Your task to perform on an android device: manage bookmarks in the chrome app Image 0: 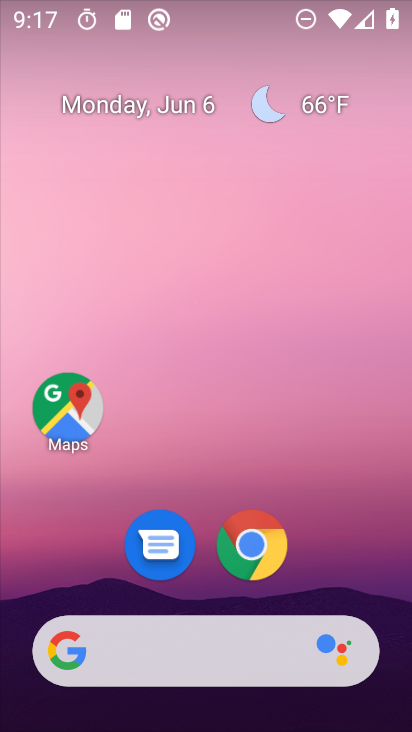
Step 0: click (273, 540)
Your task to perform on an android device: manage bookmarks in the chrome app Image 1: 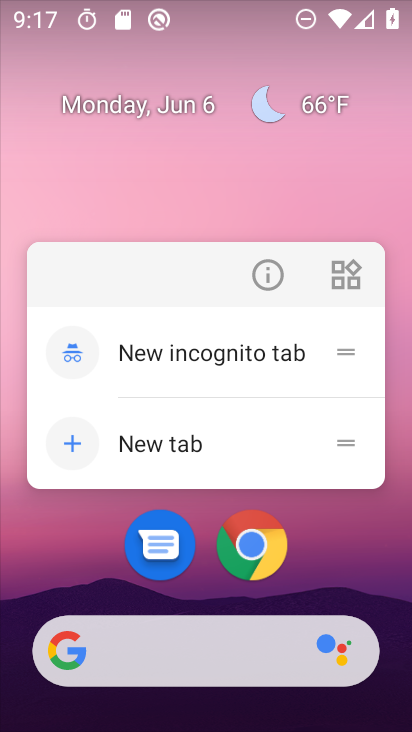
Step 1: click (250, 557)
Your task to perform on an android device: manage bookmarks in the chrome app Image 2: 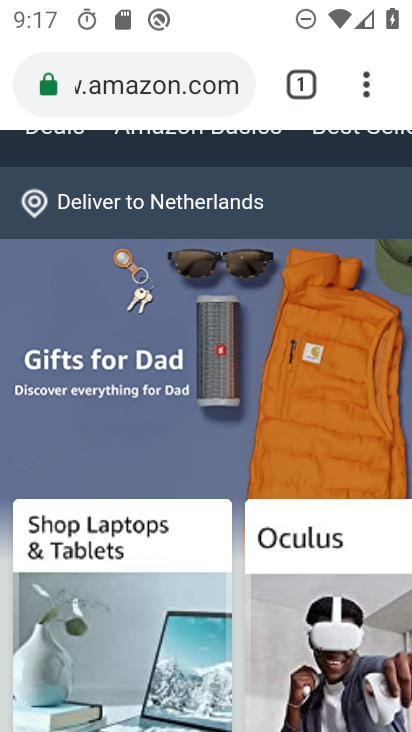
Step 2: click (363, 87)
Your task to perform on an android device: manage bookmarks in the chrome app Image 3: 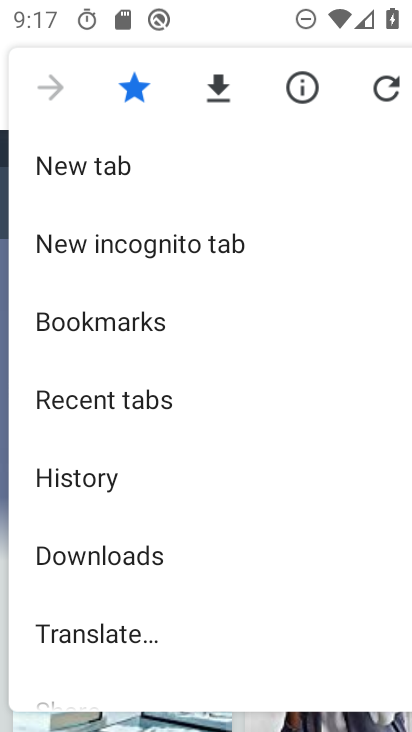
Step 3: drag from (86, 574) to (90, 454)
Your task to perform on an android device: manage bookmarks in the chrome app Image 4: 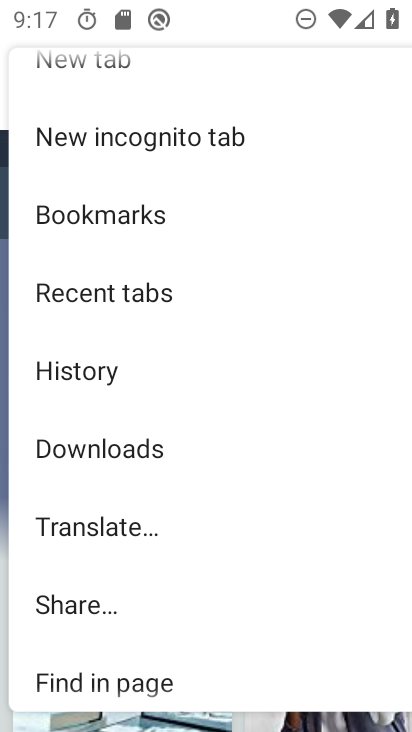
Step 4: click (98, 221)
Your task to perform on an android device: manage bookmarks in the chrome app Image 5: 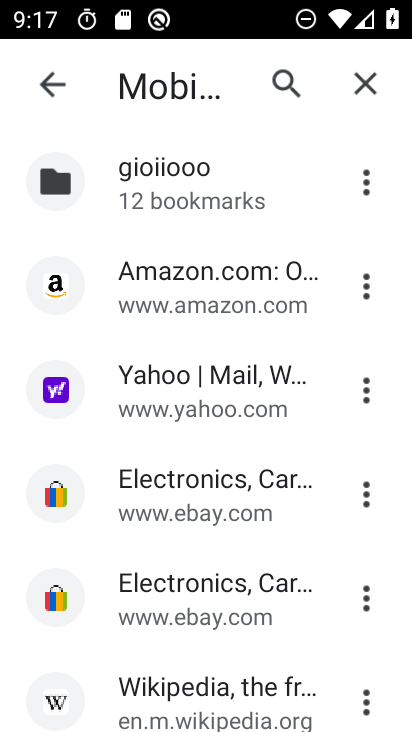
Step 5: click (366, 288)
Your task to perform on an android device: manage bookmarks in the chrome app Image 6: 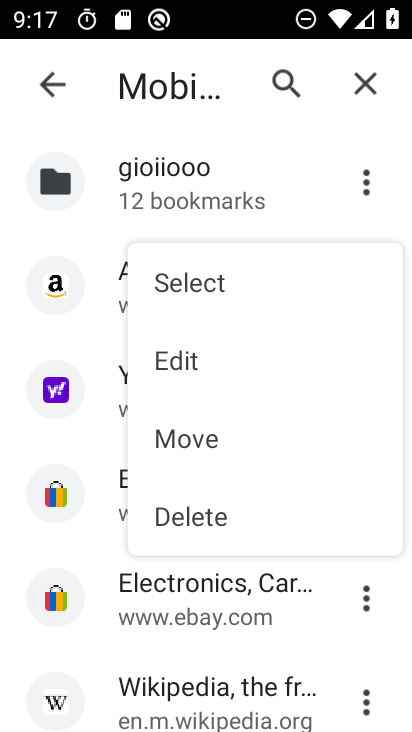
Step 6: click (179, 276)
Your task to perform on an android device: manage bookmarks in the chrome app Image 7: 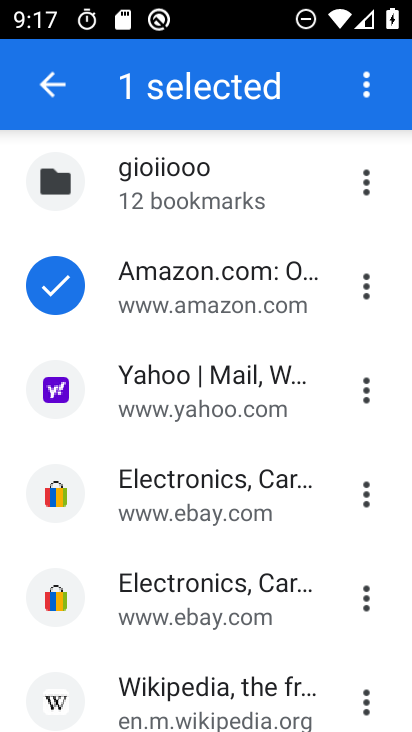
Step 7: click (127, 401)
Your task to perform on an android device: manage bookmarks in the chrome app Image 8: 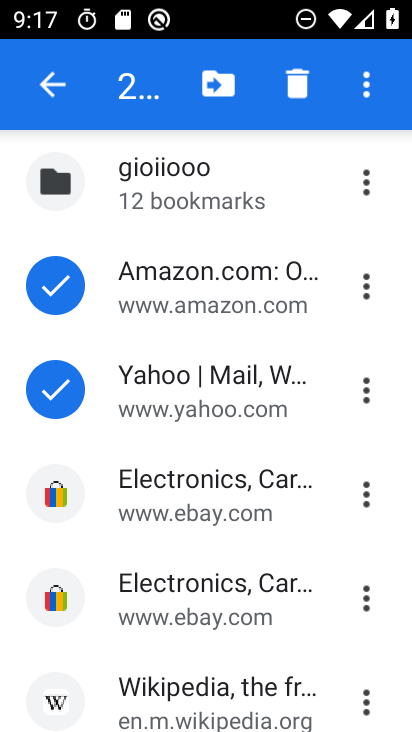
Step 8: click (144, 487)
Your task to perform on an android device: manage bookmarks in the chrome app Image 9: 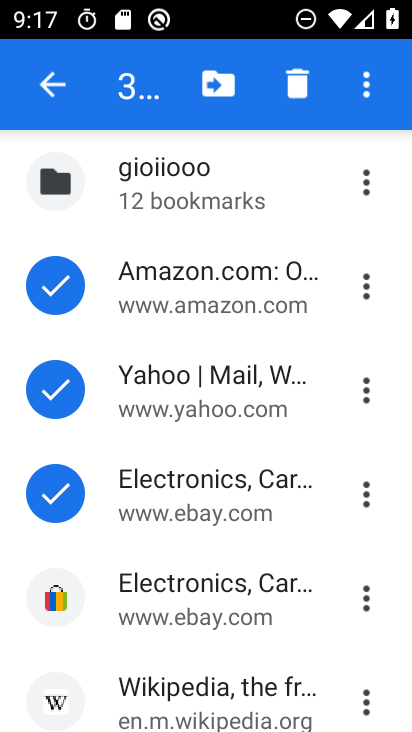
Step 9: click (145, 576)
Your task to perform on an android device: manage bookmarks in the chrome app Image 10: 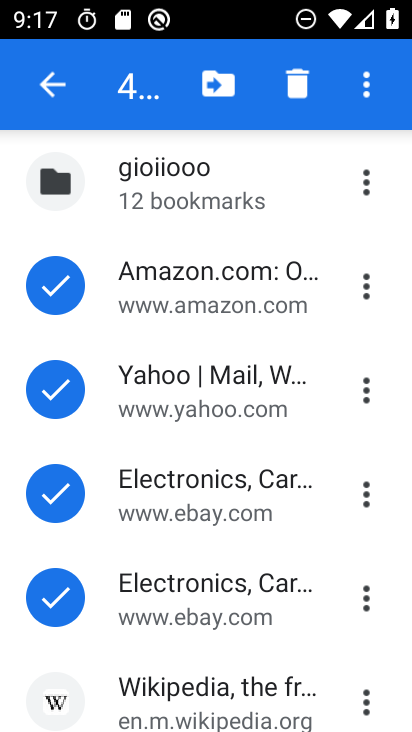
Step 10: click (163, 689)
Your task to perform on an android device: manage bookmarks in the chrome app Image 11: 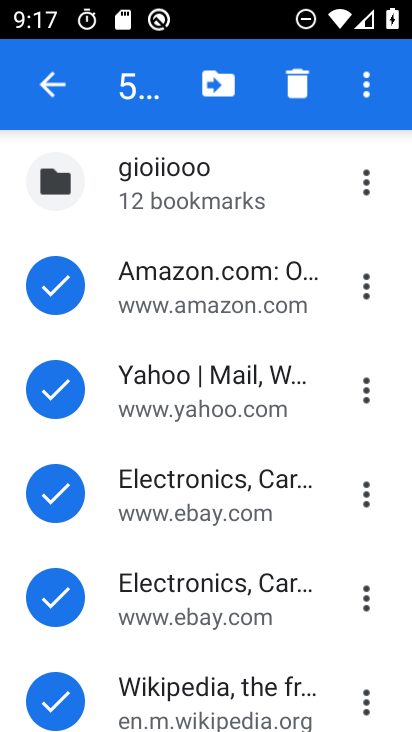
Step 11: drag from (174, 661) to (247, 196)
Your task to perform on an android device: manage bookmarks in the chrome app Image 12: 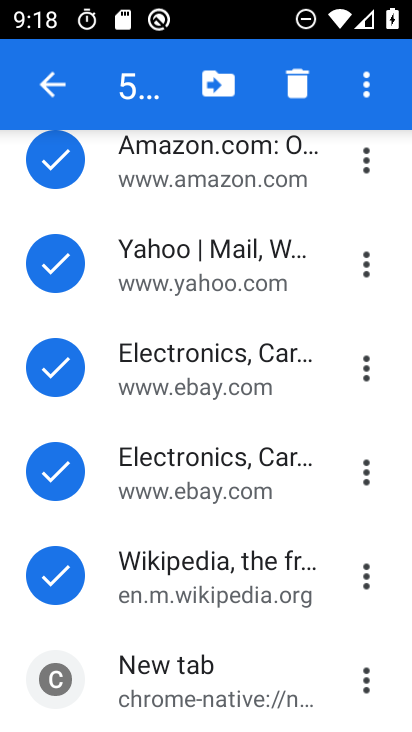
Step 12: click (216, 80)
Your task to perform on an android device: manage bookmarks in the chrome app Image 13: 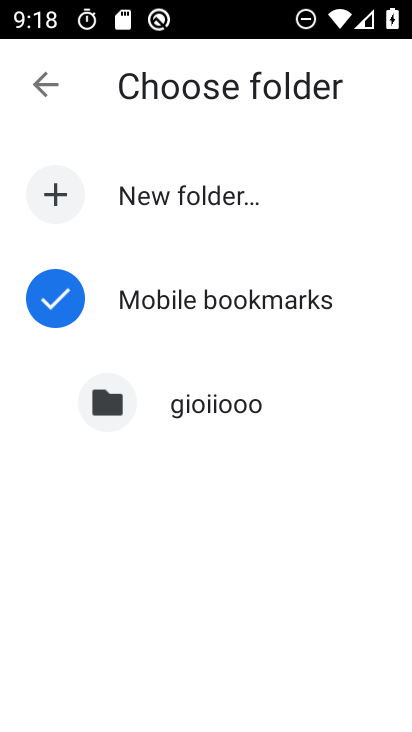
Step 13: click (226, 391)
Your task to perform on an android device: manage bookmarks in the chrome app Image 14: 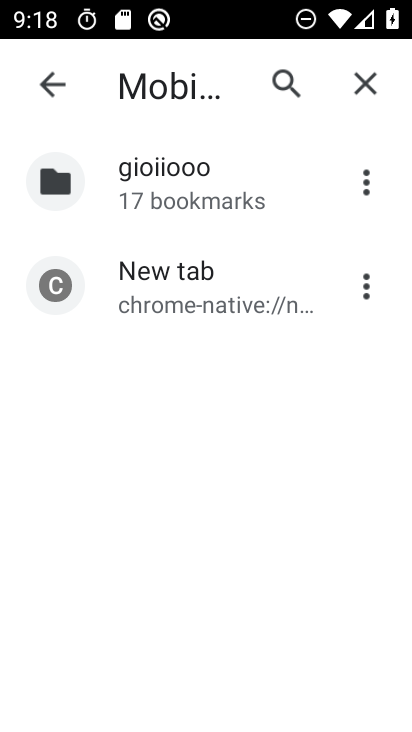
Step 14: task complete